Your task to perform on an android device: Show the shopping cart on ebay.com. Add macbook pro to the cart on ebay.com Image 0: 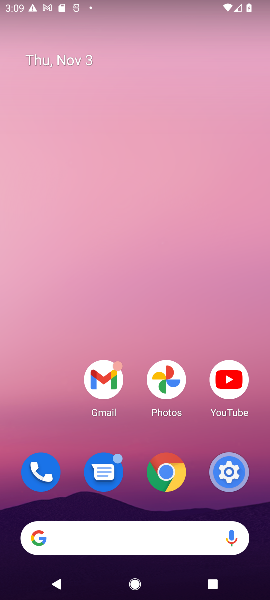
Step 0: click (118, 538)
Your task to perform on an android device: Show the shopping cart on ebay.com. Add macbook pro to the cart on ebay.com Image 1: 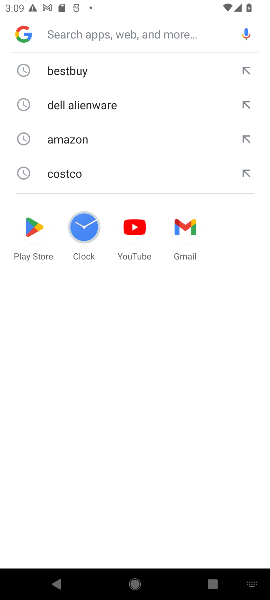
Step 1: type "ebay.com"
Your task to perform on an android device: Show the shopping cart on ebay.com. Add macbook pro to the cart on ebay.com Image 2: 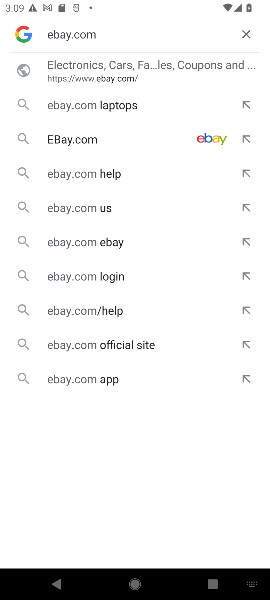
Step 2: click (72, 73)
Your task to perform on an android device: Show the shopping cart on ebay.com. Add macbook pro to the cart on ebay.com Image 3: 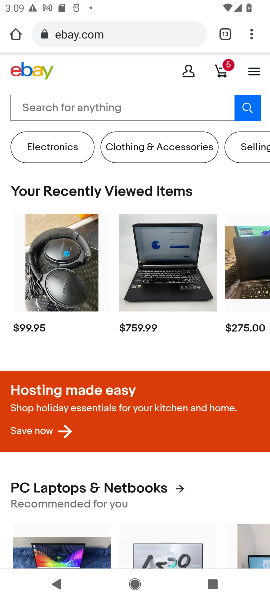
Step 3: click (81, 104)
Your task to perform on an android device: Show the shopping cart on ebay.com. Add macbook pro to the cart on ebay.com Image 4: 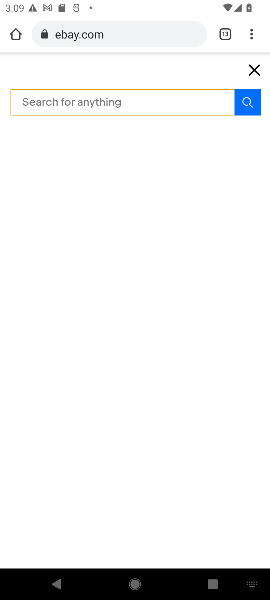
Step 4: type "macbook proo"
Your task to perform on an android device: Show the shopping cart on ebay.com. Add macbook pro to the cart on ebay.com Image 5: 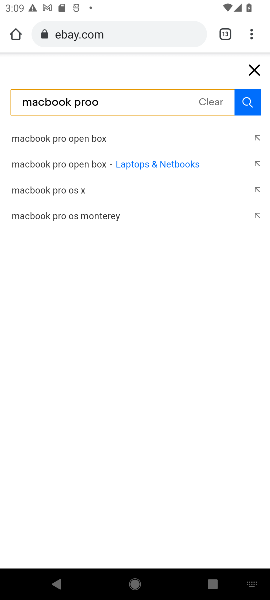
Step 5: click (93, 141)
Your task to perform on an android device: Show the shopping cart on ebay.com. Add macbook pro to the cart on ebay.com Image 6: 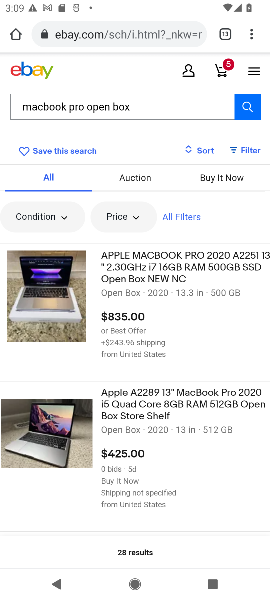
Step 6: click (121, 269)
Your task to perform on an android device: Show the shopping cart on ebay.com. Add macbook pro to the cart on ebay.com Image 7: 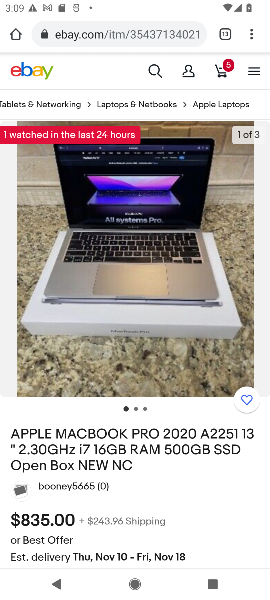
Step 7: drag from (207, 512) to (187, 296)
Your task to perform on an android device: Show the shopping cart on ebay.com. Add macbook pro to the cart on ebay.com Image 8: 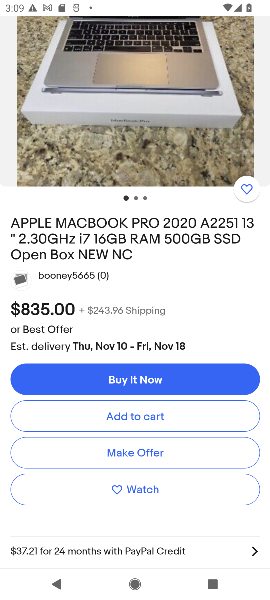
Step 8: click (121, 424)
Your task to perform on an android device: Show the shopping cart on ebay.com. Add macbook pro to the cart on ebay.com Image 9: 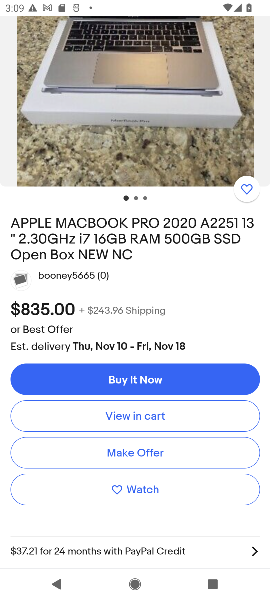
Step 9: task complete